Your task to perform on an android device: clear all cookies in the chrome app Image 0: 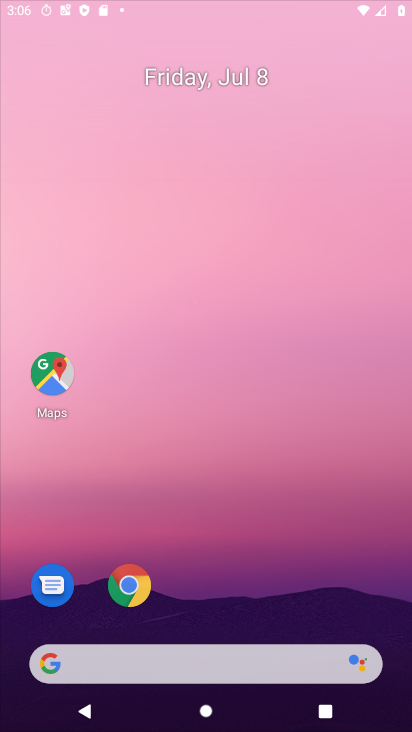
Step 0: press home button
Your task to perform on an android device: clear all cookies in the chrome app Image 1: 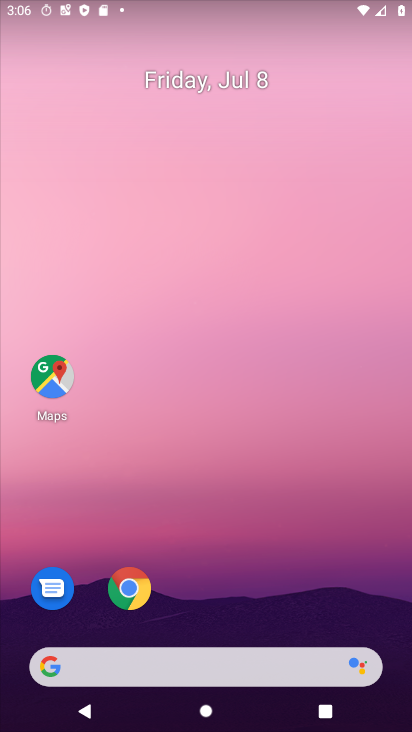
Step 1: drag from (230, 622) to (245, 2)
Your task to perform on an android device: clear all cookies in the chrome app Image 2: 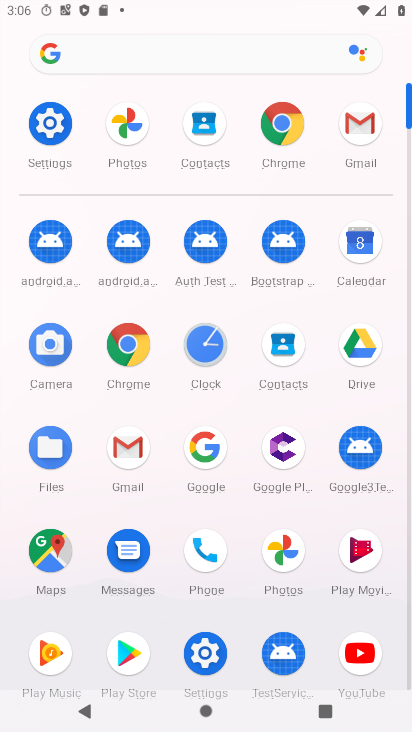
Step 2: click (281, 121)
Your task to perform on an android device: clear all cookies in the chrome app Image 3: 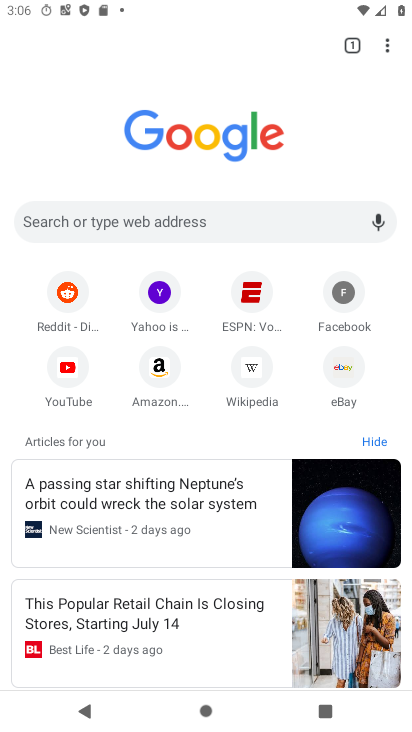
Step 3: drag from (388, 40) to (265, 376)
Your task to perform on an android device: clear all cookies in the chrome app Image 4: 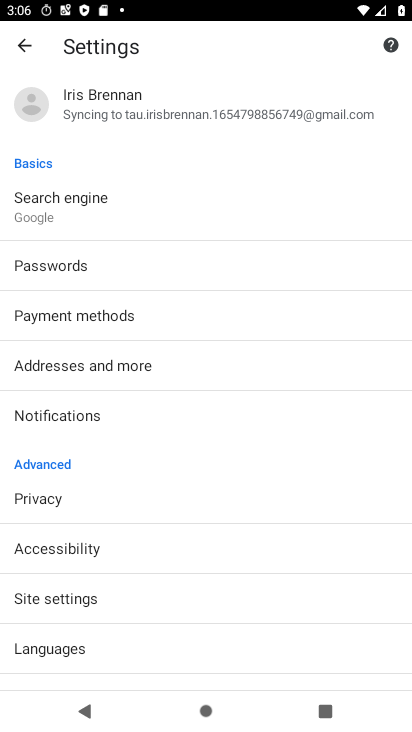
Step 4: click (36, 491)
Your task to perform on an android device: clear all cookies in the chrome app Image 5: 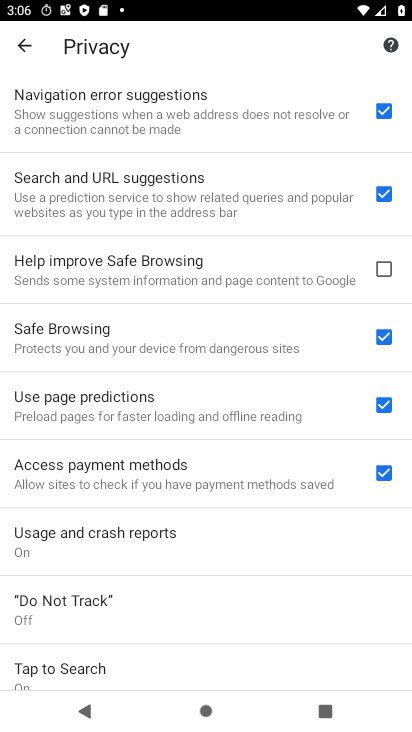
Step 5: drag from (272, 658) to (308, 188)
Your task to perform on an android device: clear all cookies in the chrome app Image 6: 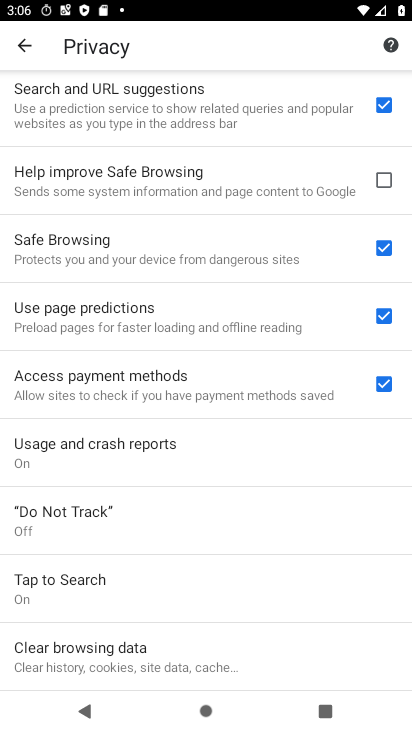
Step 6: click (100, 658)
Your task to perform on an android device: clear all cookies in the chrome app Image 7: 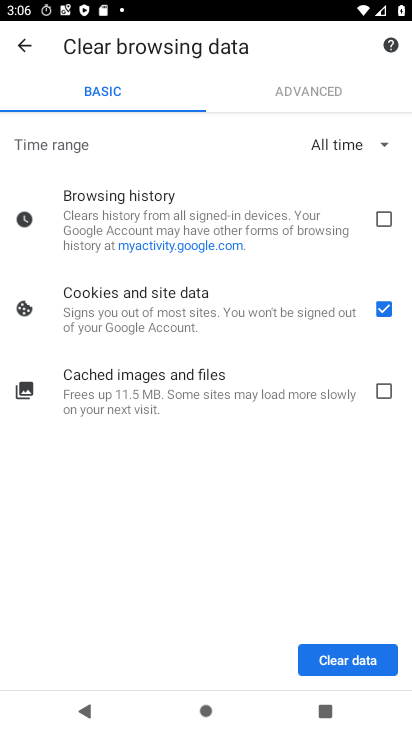
Step 7: click (365, 655)
Your task to perform on an android device: clear all cookies in the chrome app Image 8: 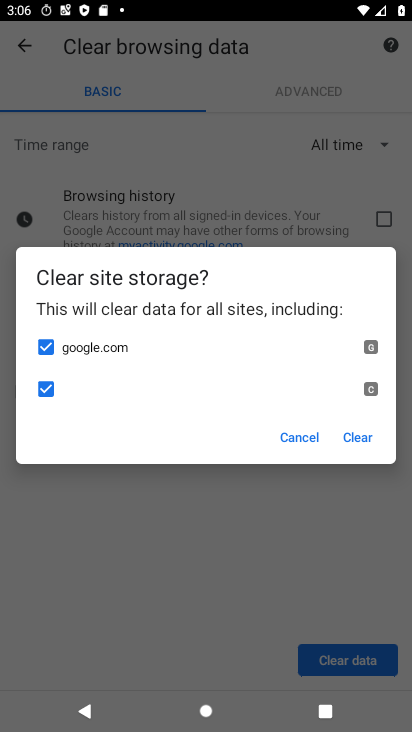
Step 8: click (355, 439)
Your task to perform on an android device: clear all cookies in the chrome app Image 9: 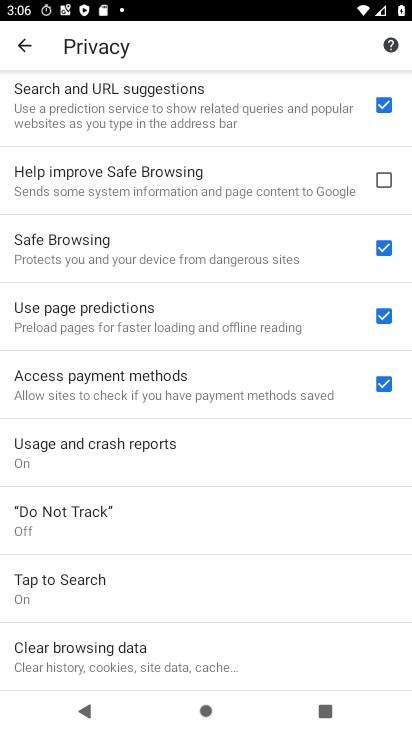
Step 9: task complete